Your task to perform on an android device: Do I have any events today? Image 0: 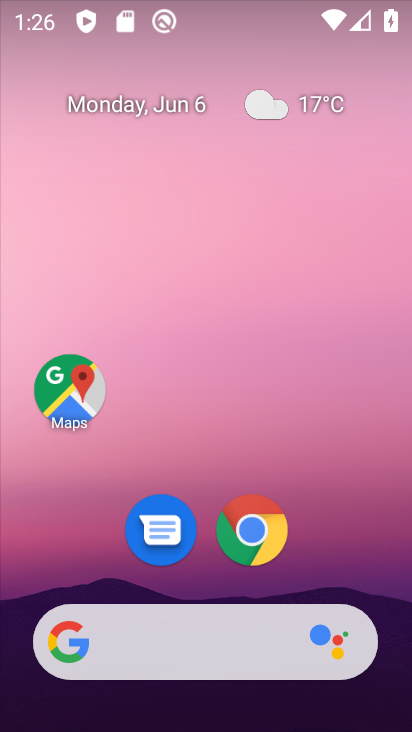
Step 0: drag from (371, 580) to (226, 172)
Your task to perform on an android device: Do I have any events today? Image 1: 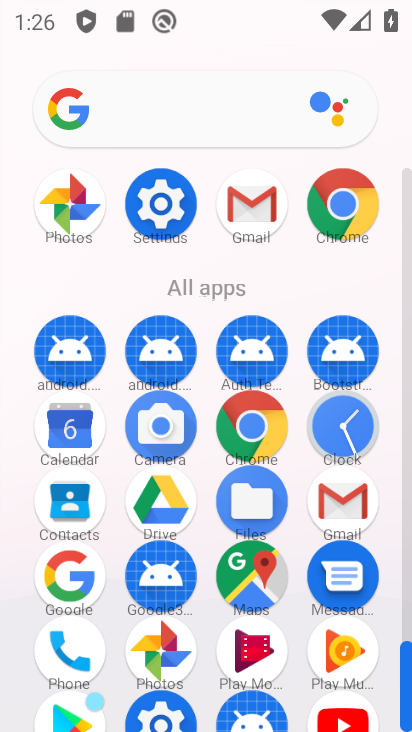
Step 1: click (78, 431)
Your task to perform on an android device: Do I have any events today? Image 2: 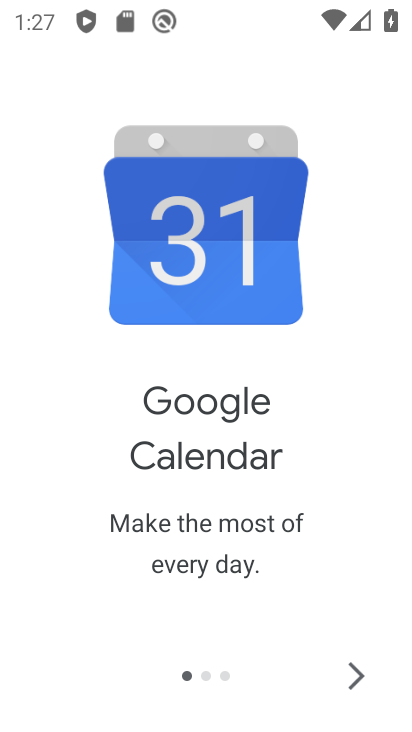
Step 2: click (364, 674)
Your task to perform on an android device: Do I have any events today? Image 3: 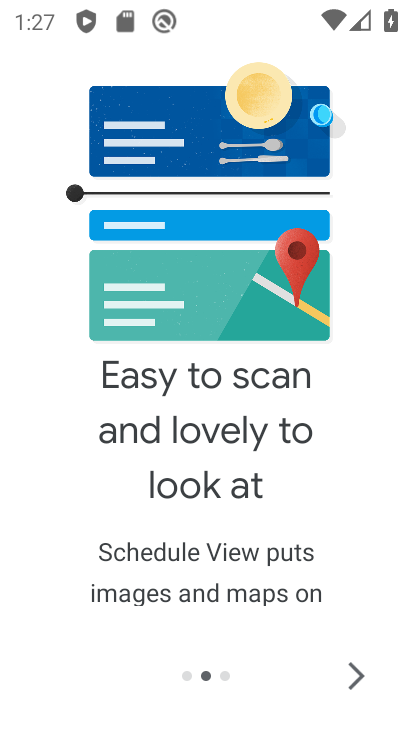
Step 3: click (364, 674)
Your task to perform on an android device: Do I have any events today? Image 4: 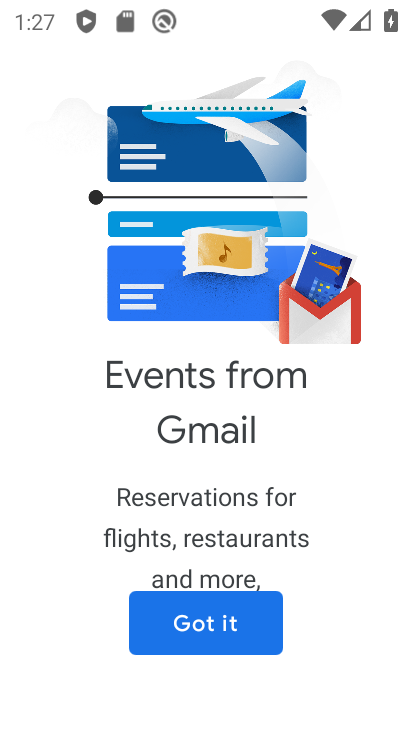
Step 4: click (253, 638)
Your task to perform on an android device: Do I have any events today? Image 5: 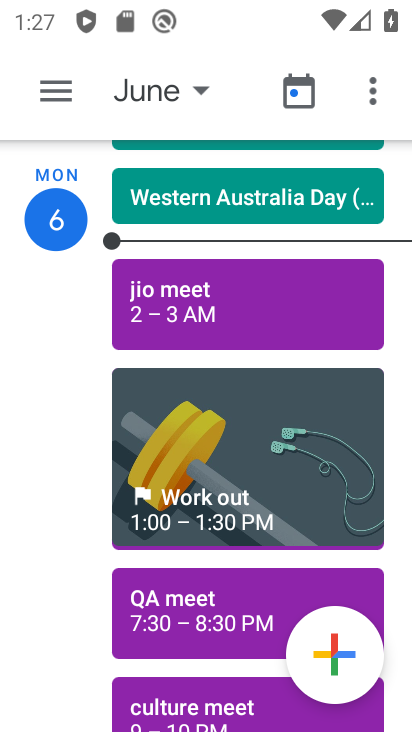
Step 5: click (53, 82)
Your task to perform on an android device: Do I have any events today? Image 6: 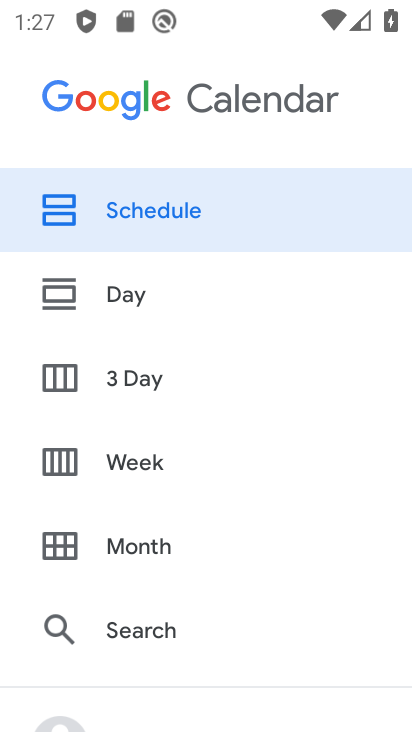
Step 6: drag from (132, 677) to (178, 261)
Your task to perform on an android device: Do I have any events today? Image 7: 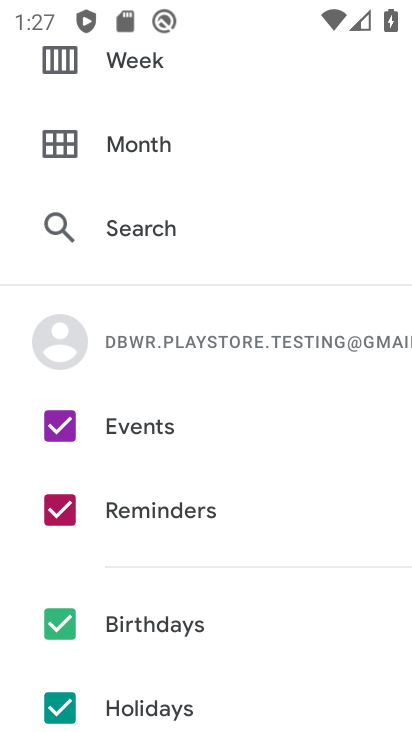
Step 7: click (63, 710)
Your task to perform on an android device: Do I have any events today? Image 8: 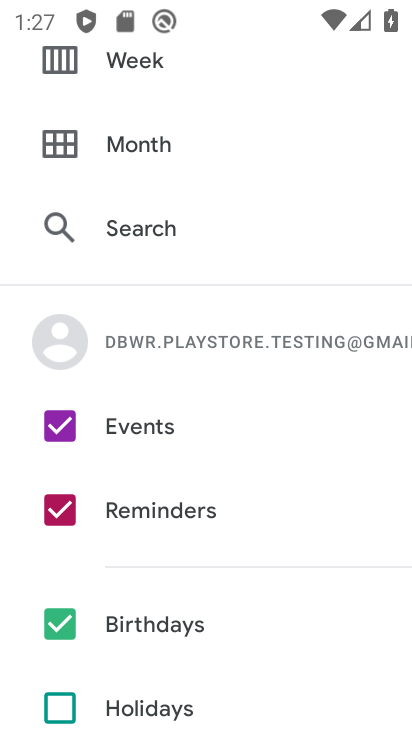
Step 8: click (62, 611)
Your task to perform on an android device: Do I have any events today? Image 9: 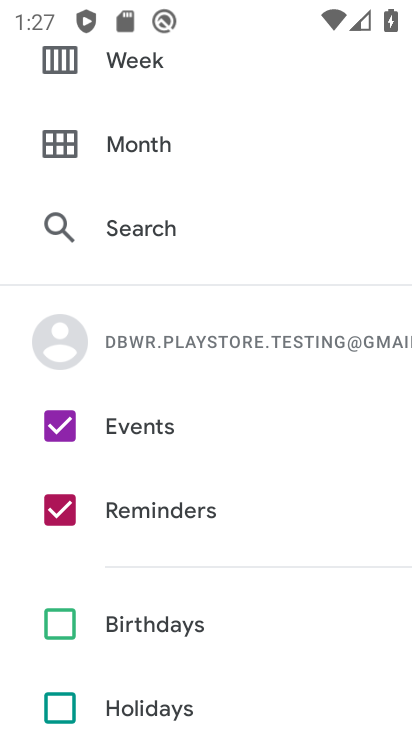
Step 9: click (60, 512)
Your task to perform on an android device: Do I have any events today? Image 10: 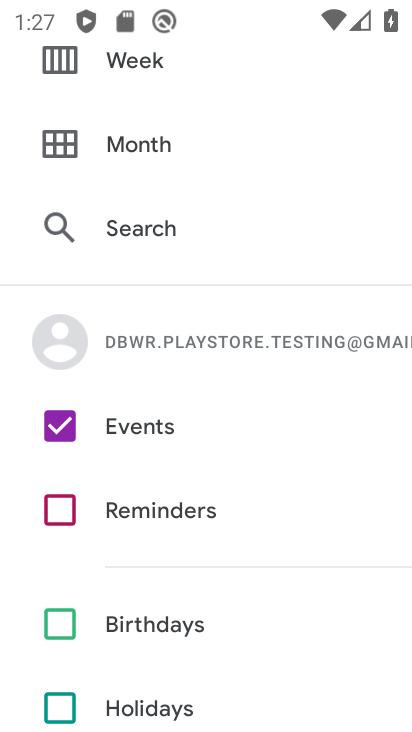
Step 10: drag from (194, 112) to (179, 565)
Your task to perform on an android device: Do I have any events today? Image 11: 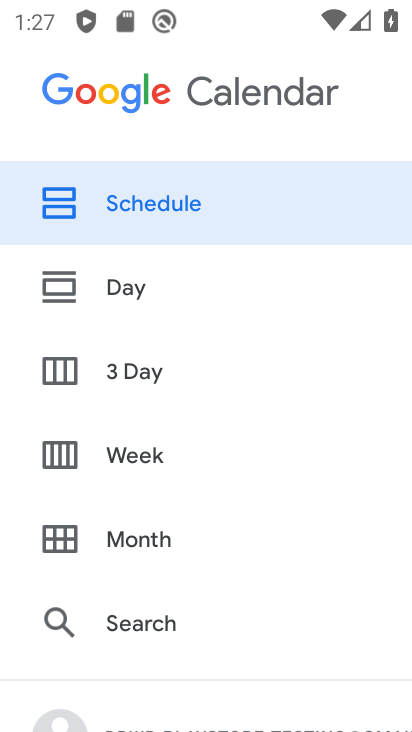
Step 11: click (156, 209)
Your task to perform on an android device: Do I have any events today? Image 12: 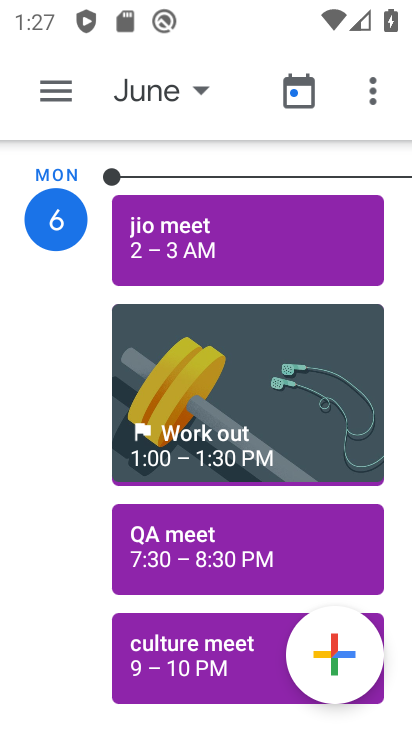
Step 12: task complete